Your task to perform on an android device: Open Google Maps and go to "Timeline" Image 0: 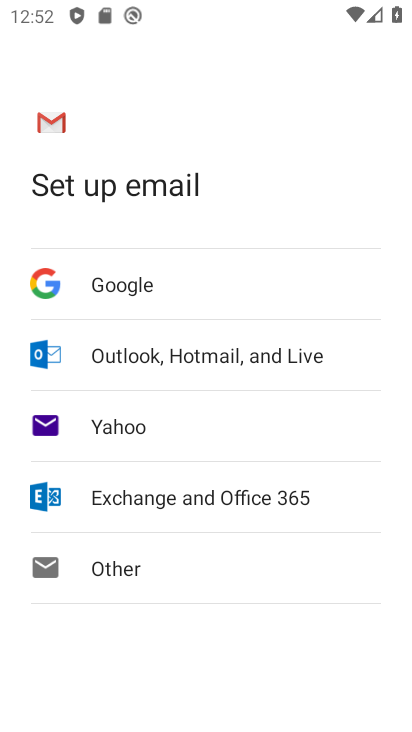
Step 0: press home button
Your task to perform on an android device: Open Google Maps and go to "Timeline" Image 1: 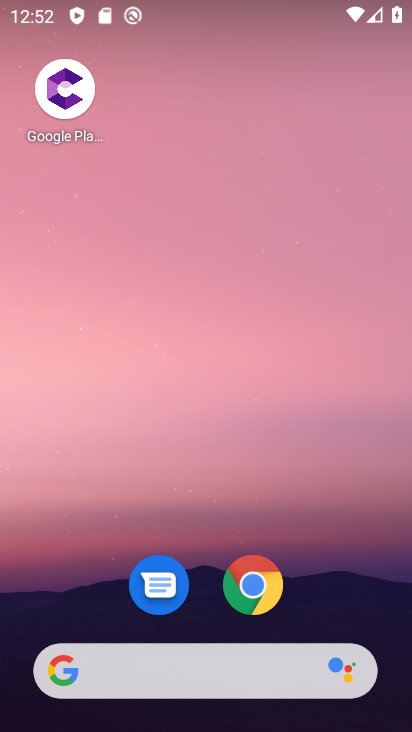
Step 1: press home button
Your task to perform on an android device: Open Google Maps and go to "Timeline" Image 2: 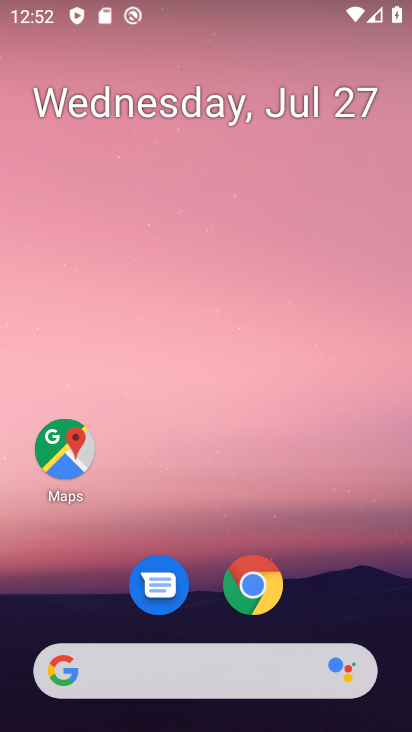
Step 2: click (71, 448)
Your task to perform on an android device: Open Google Maps and go to "Timeline" Image 3: 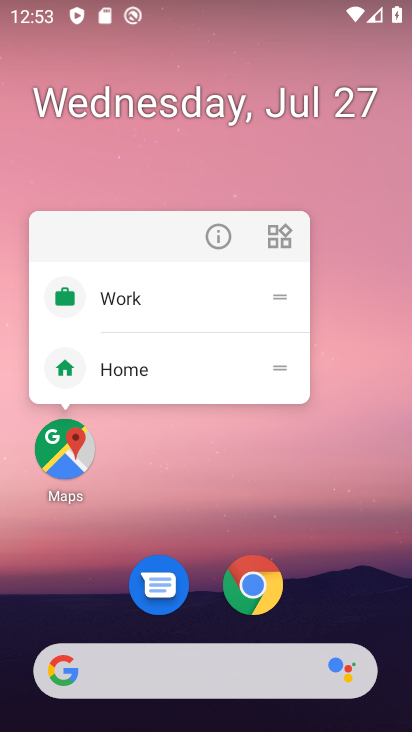
Step 3: click (69, 457)
Your task to perform on an android device: Open Google Maps and go to "Timeline" Image 4: 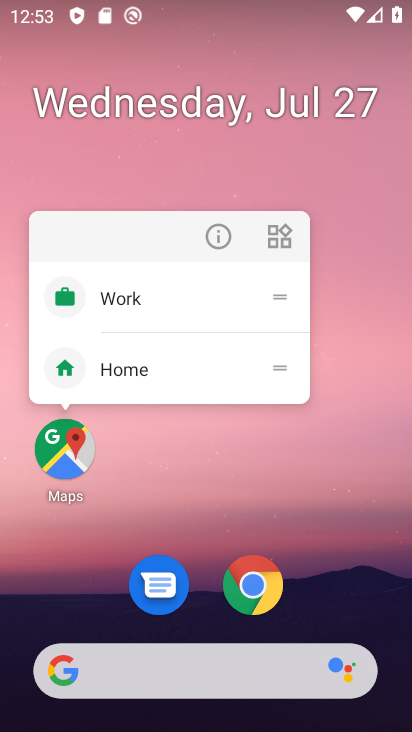
Step 4: click (65, 448)
Your task to perform on an android device: Open Google Maps and go to "Timeline" Image 5: 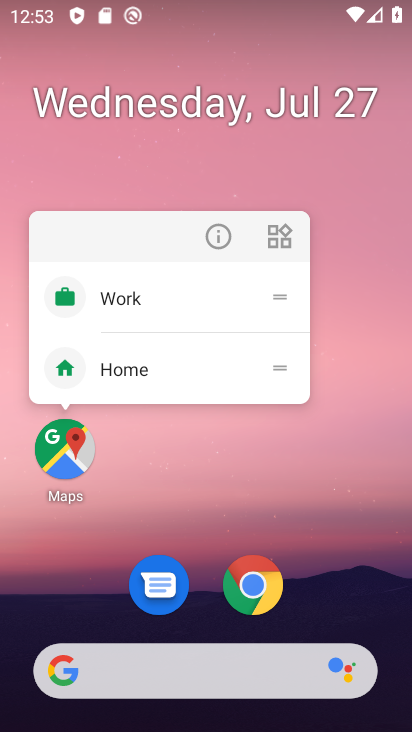
Step 5: click (65, 447)
Your task to perform on an android device: Open Google Maps and go to "Timeline" Image 6: 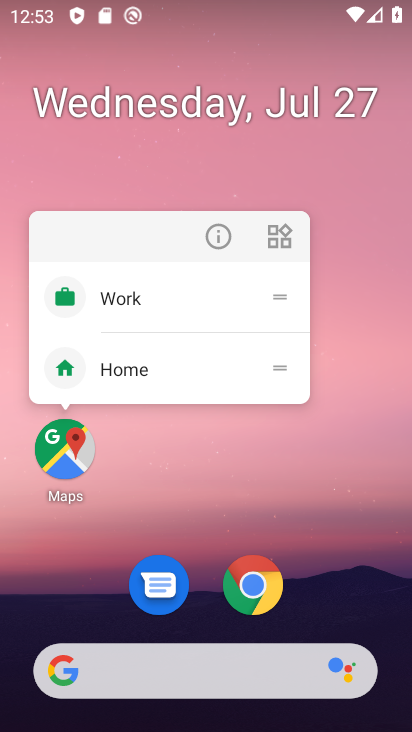
Step 6: click (71, 444)
Your task to perform on an android device: Open Google Maps and go to "Timeline" Image 7: 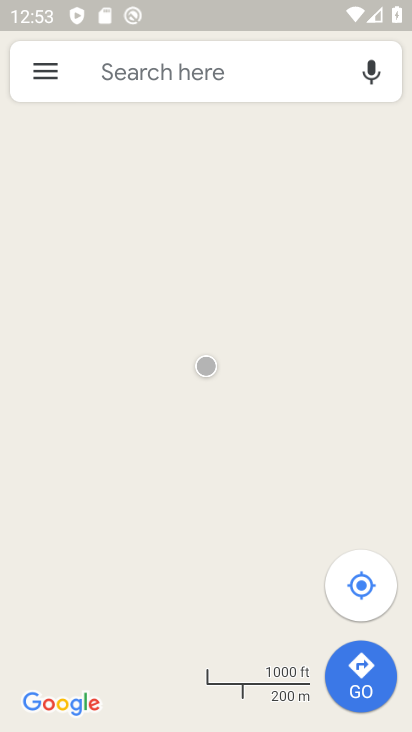
Step 7: click (46, 69)
Your task to perform on an android device: Open Google Maps and go to "Timeline" Image 8: 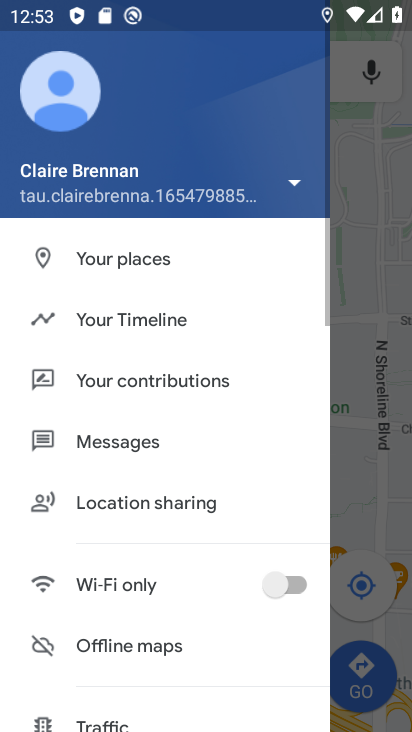
Step 8: click (127, 310)
Your task to perform on an android device: Open Google Maps and go to "Timeline" Image 9: 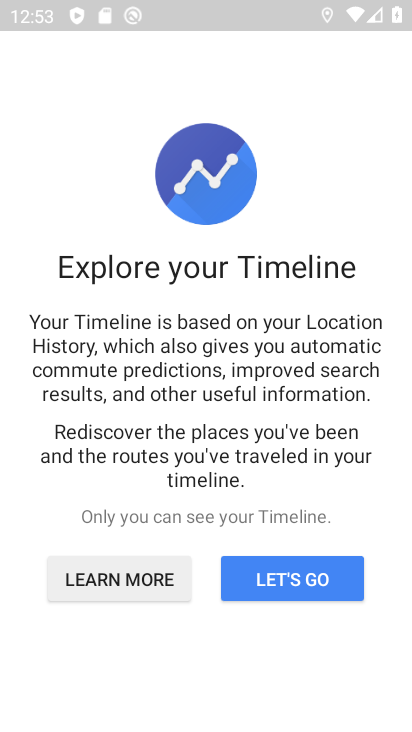
Step 9: click (275, 563)
Your task to perform on an android device: Open Google Maps and go to "Timeline" Image 10: 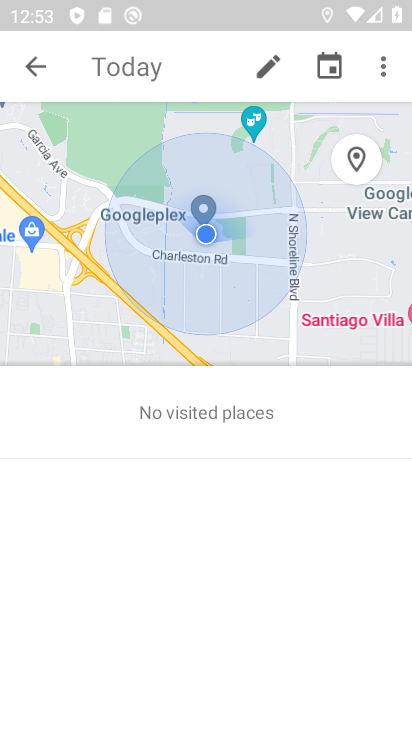
Step 10: task complete